Your task to perform on an android device: delete browsing data in the chrome app Image 0: 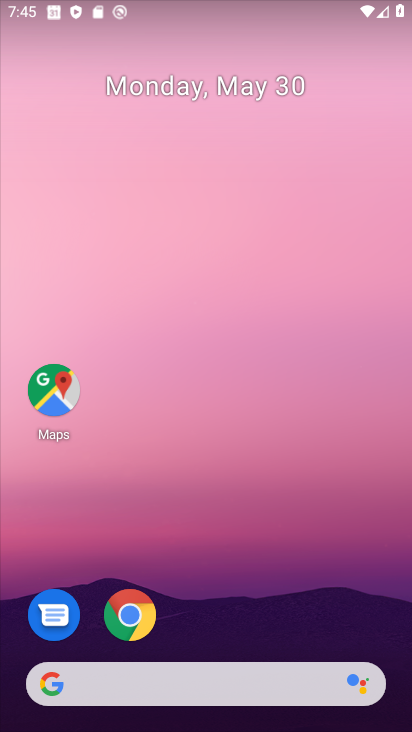
Step 0: click (134, 617)
Your task to perform on an android device: delete browsing data in the chrome app Image 1: 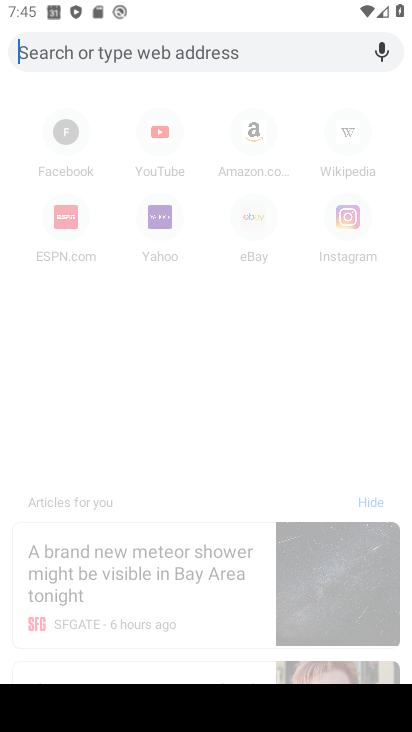
Step 1: press back button
Your task to perform on an android device: delete browsing data in the chrome app Image 2: 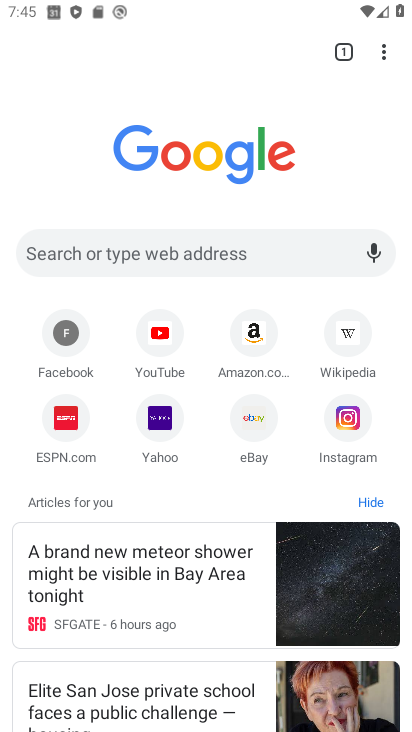
Step 2: click (378, 49)
Your task to perform on an android device: delete browsing data in the chrome app Image 3: 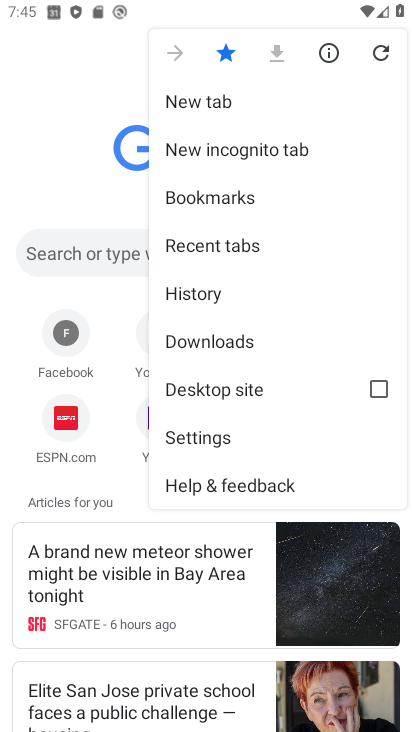
Step 3: click (244, 291)
Your task to perform on an android device: delete browsing data in the chrome app Image 4: 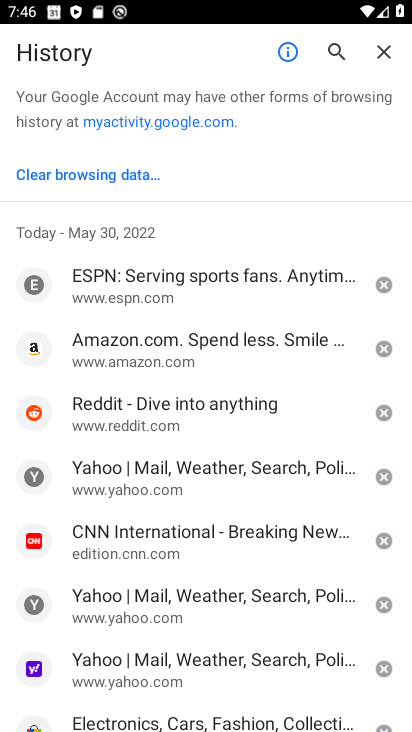
Step 4: click (110, 181)
Your task to perform on an android device: delete browsing data in the chrome app Image 5: 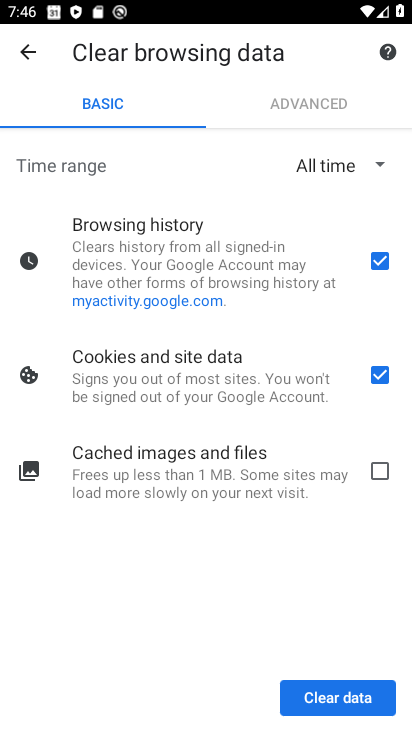
Step 5: click (374, 374)
Your task to perform on an android device: delete browsing data in the chrome app Image 6: 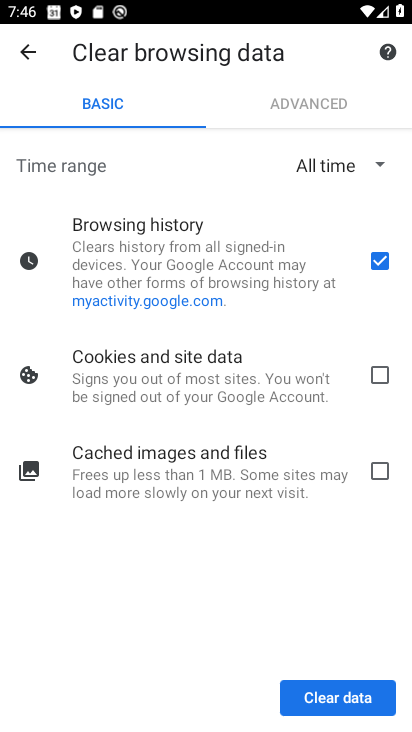
Step 6: click (366, 702)
Your task to perform on an android device: delete browsing data in the chrome app Image 7: 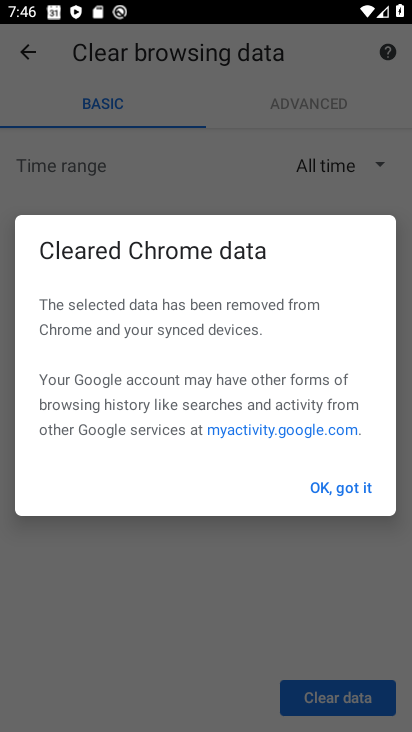
Step 7: click (348, 501)
Your task to perform on an android device: delete browsing data in the chrome app Image 8: 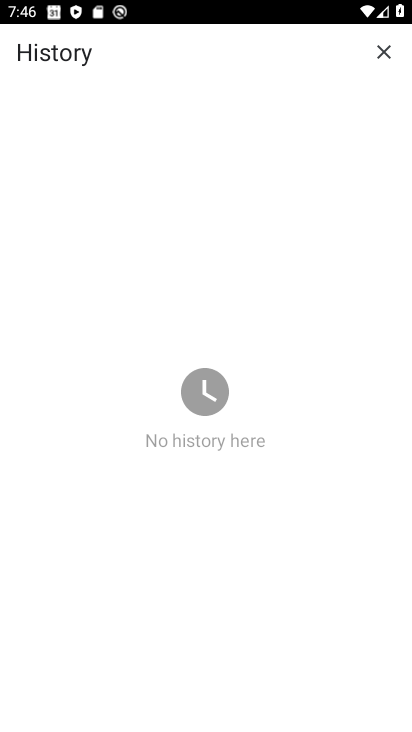
Step 8: task complete